Your task to perform on an android device: Open internet settings Image 0: 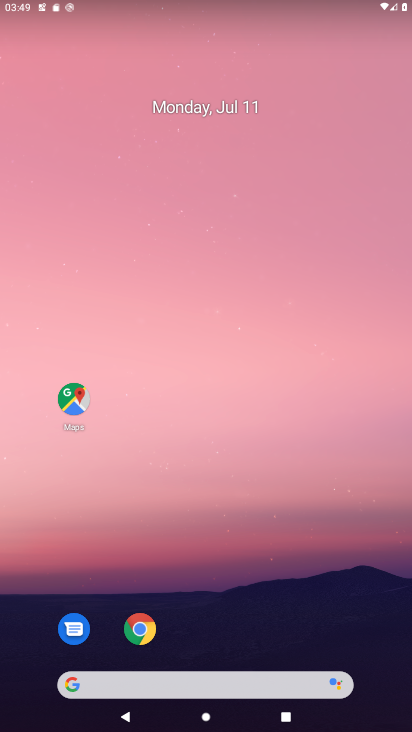
Step 0: drag from (213, 626) to (252, 30)
Your task to perform on an android device: Open internet settings Image 1: 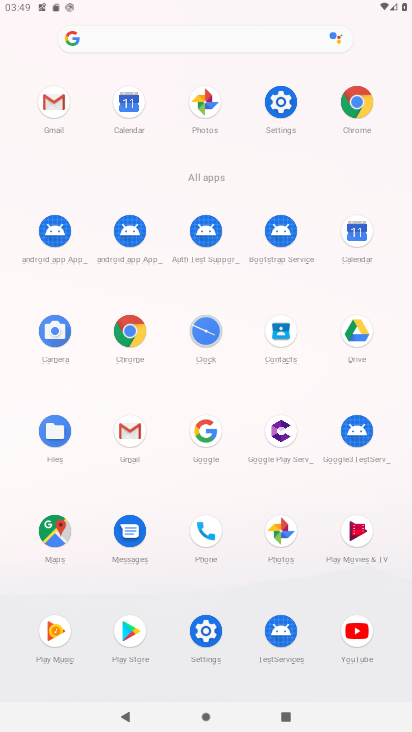
Step 1: click (282, 106)
Your task to perform on an android device: Open internet settings Image 2: 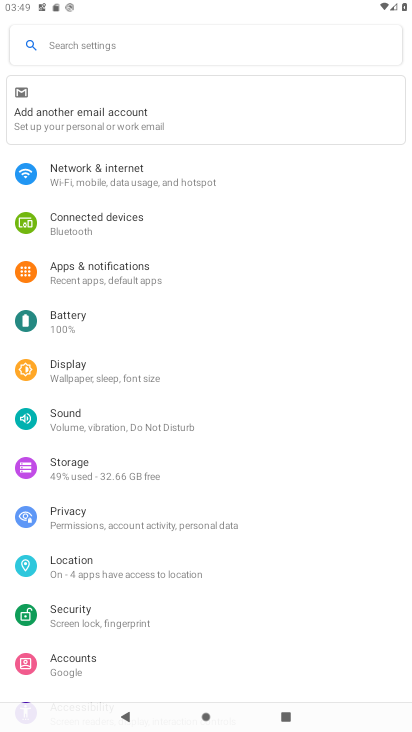
Step 2: click (105, 168)
Your task to perform on an android device: Open internet settings Image 3: 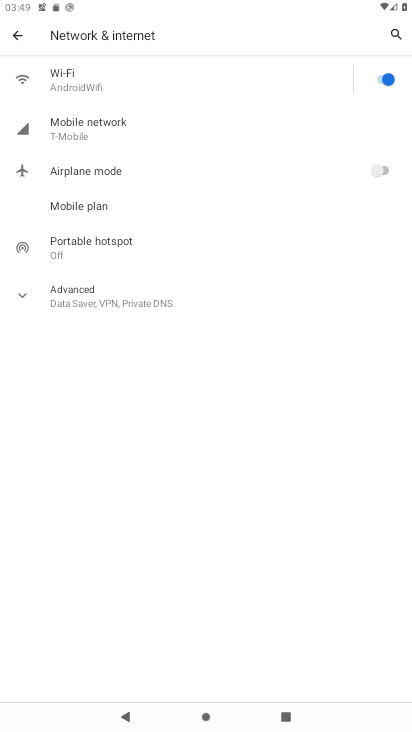
Step 3: task complete